Your task to perform on an android device: Is it going to rain tomorrow? Image 0: 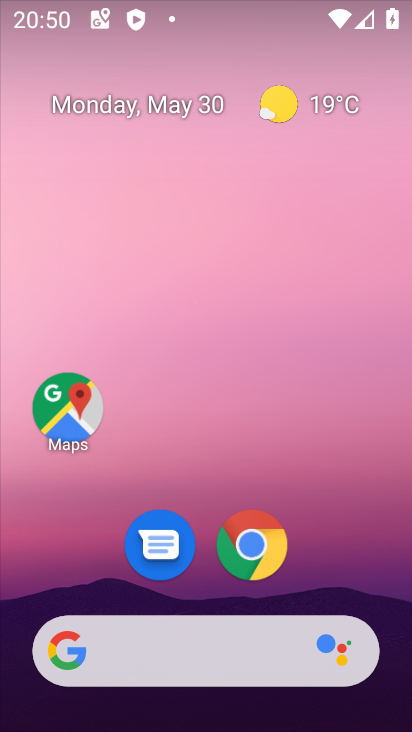
Step 0: click (163, 657)
Your task to perform on an android device: Is it going to rain tomorrow? Image 1: 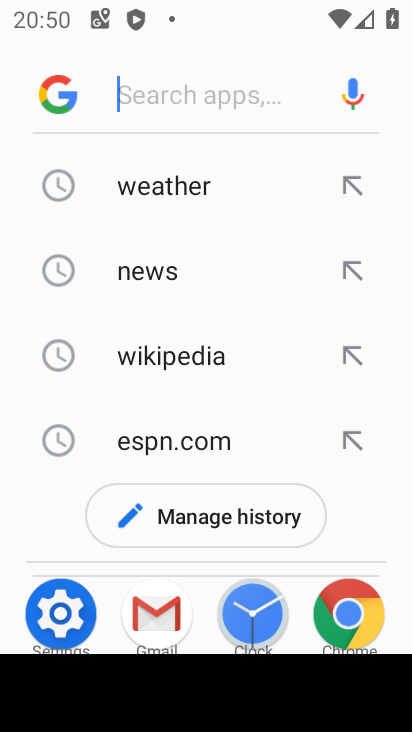
Step 1: click (170, 190)
Your task to perform on an android device: Is it going to rain tomorrow? Image 2: 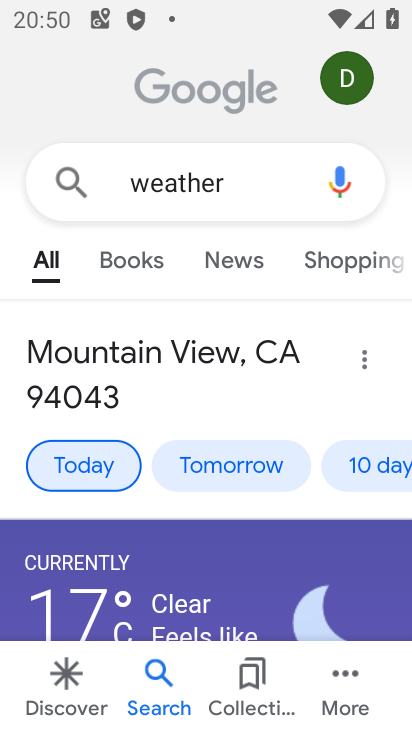
Step 2: click (232, 457)
Your task to perform on an android device: Is it going to rain tomorrow? Image 3: 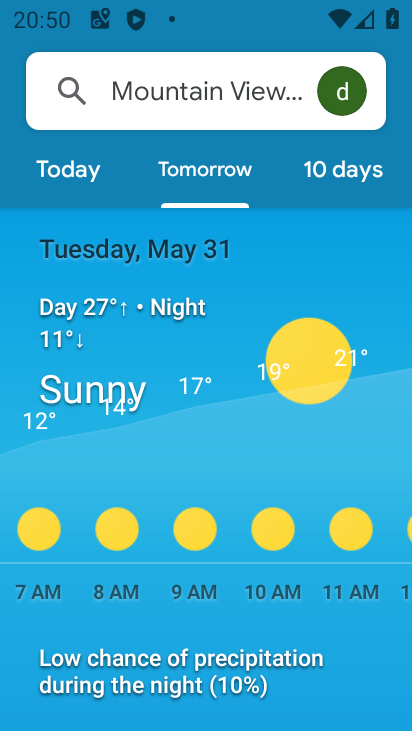
Step 3: task complete